Your task to perform on an android device: turn on wifi Image 0: 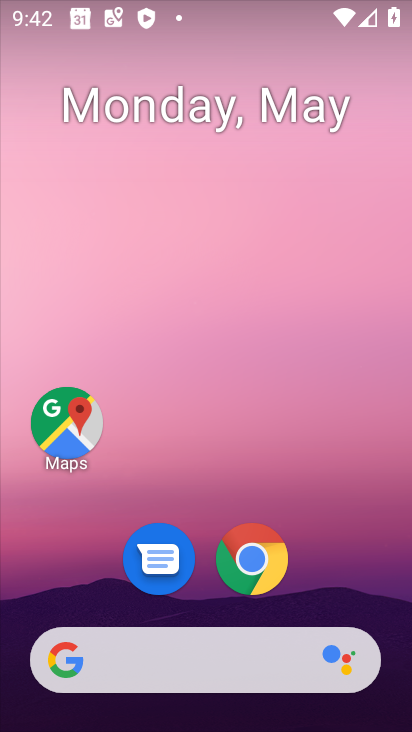
Step 0: drag from (314, 490) to (200, 194)
Your task to perform on an android device: turn on wifi Image 1: 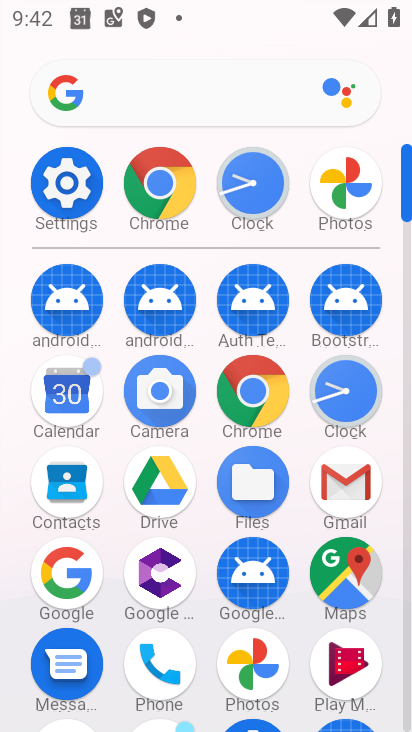
Step 1: click (55, 200)
Your task to perform on an android device: turn on wifi Image 2: 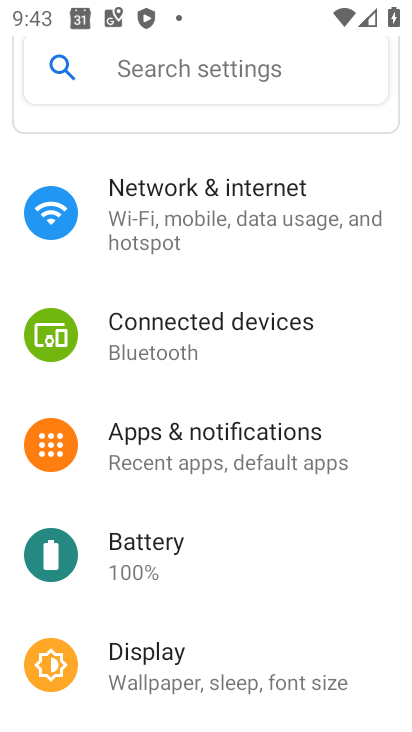
Step 2: click (203, 205)
Your task to perform on an android device: turn on wifi Image 3: 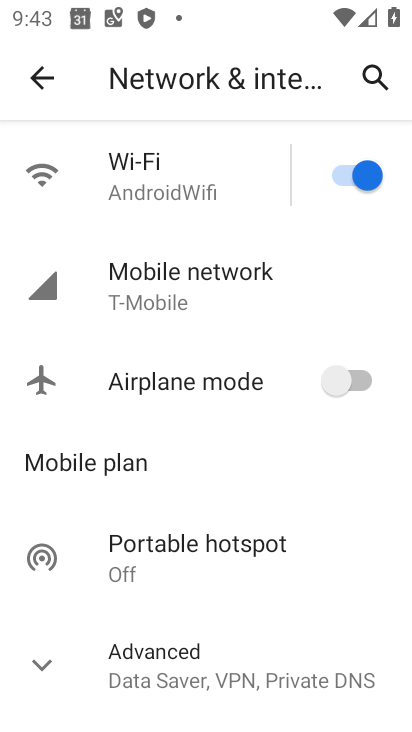
Step 3: click (151, 154)
Your task to perform on an android device: turn on wifi Image 4: 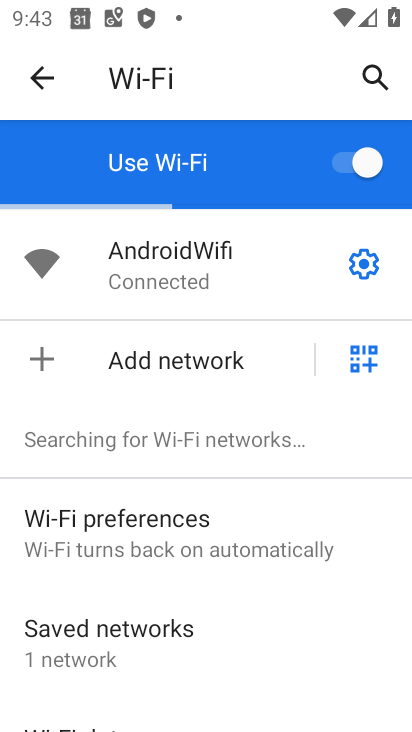
Step 4: task complete